Your task to perform on an android device: turn pop-ups off in chrome Image 0: 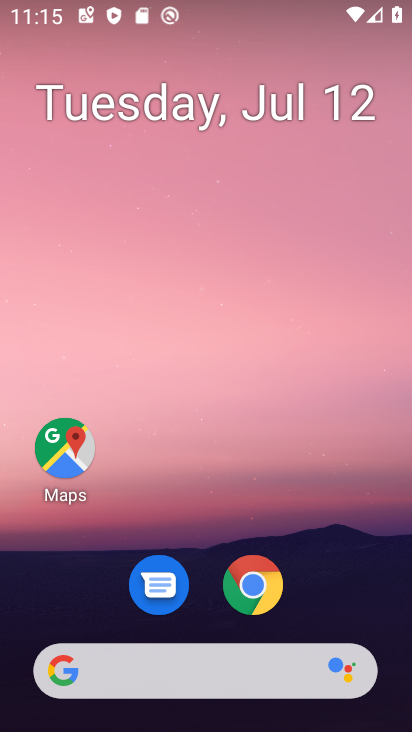
Step 0: drag from (330, 577) to (283, 188)
Your task to perform on an android device: turn pop-ups off in chrome Image 1: 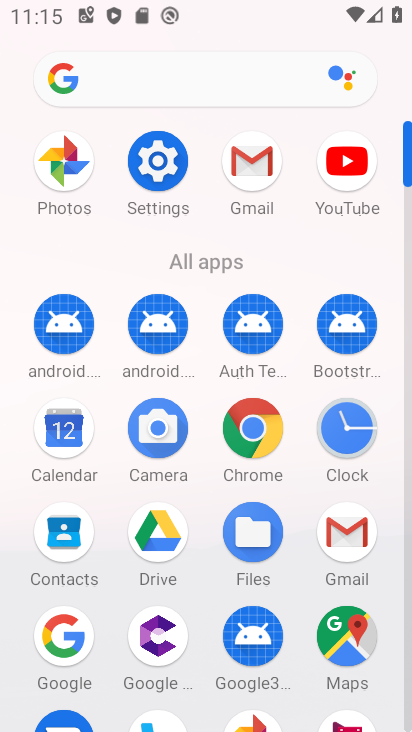
Step 1: click (252, 441)
Your task to perform on an android device: turn pop-ups off in chrome Image 2: 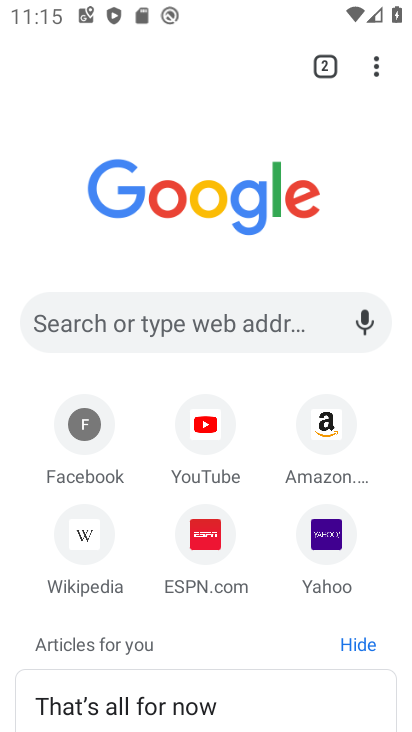
Step 2: click (378, 68)
Your task to perform on an android device: turn pop-ups off in chrome Image 3: 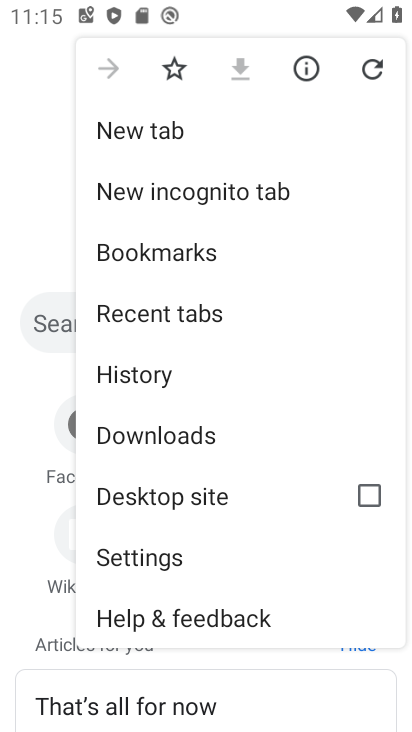
Step 3: click (167, 555)
Your task to perform on an android device: turn pop-ups off in chrome Image 4: 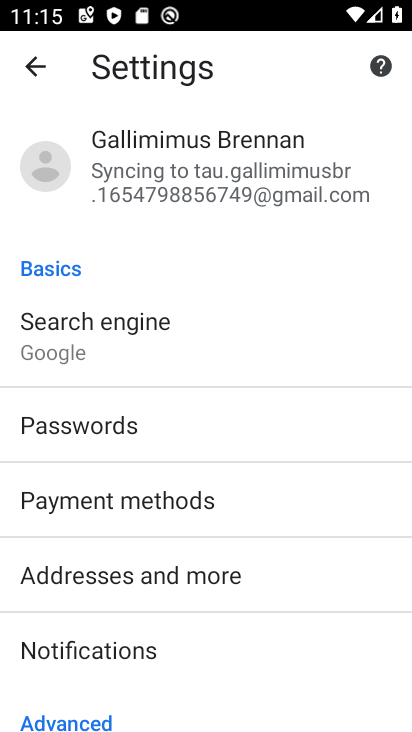
Step 4: drag from (205, 621) to (186, 260)
Your task to perform on an android device: turn pop-ups off in chrome Image 5: 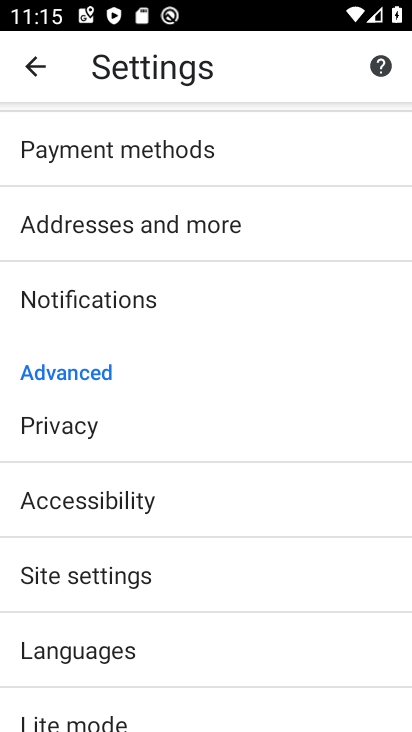
Step 5: click (136, 581)
Your task to perform on an android device: turn pop-ups off in chrome Image 6: 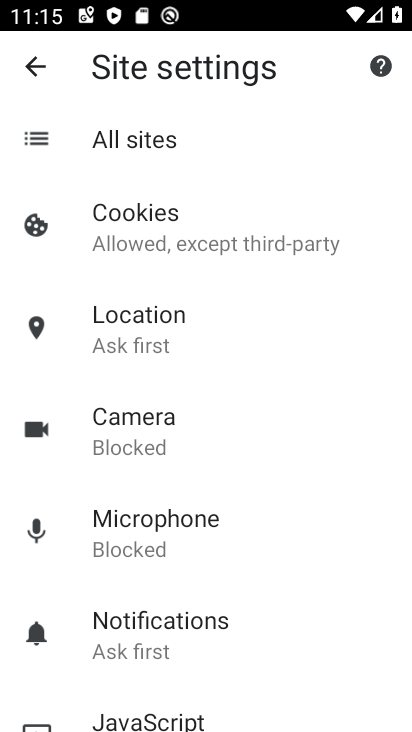
Step 6: drag from (288, 626) to (263, 234)
Your task to perform on an android device: turn pop-ups off in chrome Image 7: 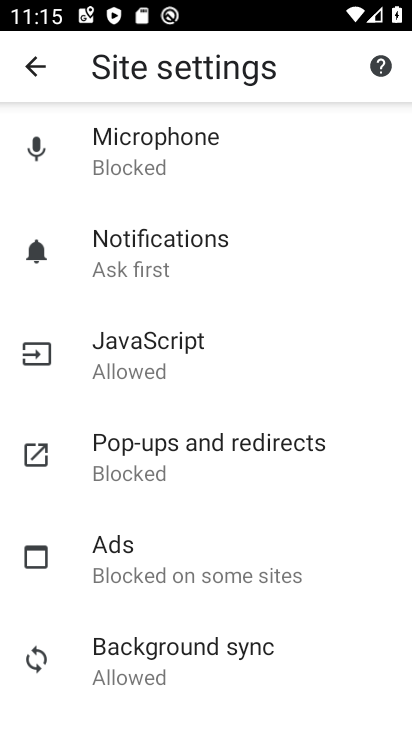
Step 7: click (232, 461)
Your task to perform on an android device: turn pop-ups off in chrome Image 8: 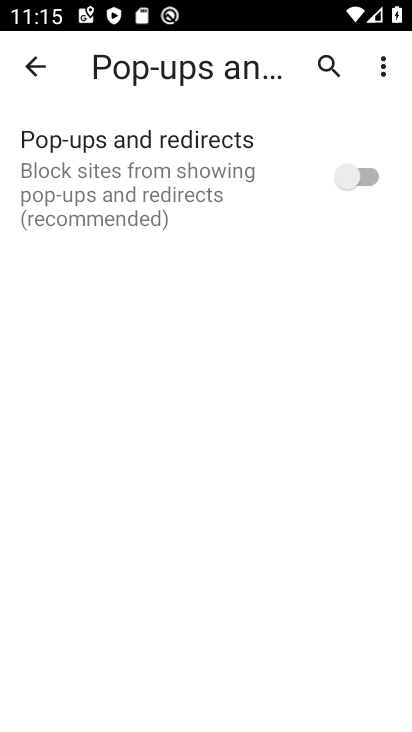
Step 8: task complete